Your task to perform on an android device: turn on the 12-hour format for clock Image 0: 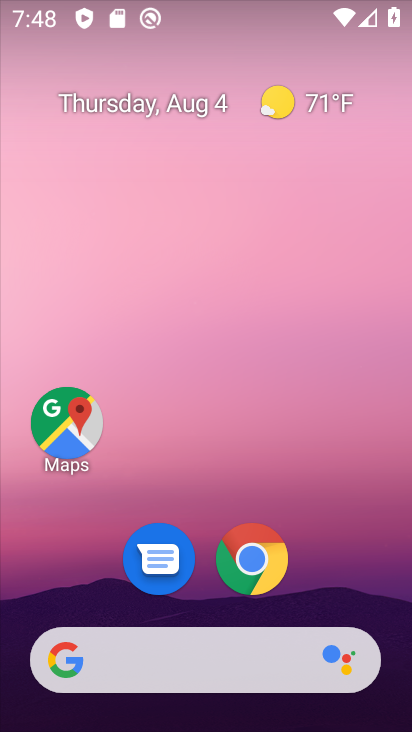
Step 0: drag from (231, 627) to (144, 13)
Your task to perform on an android device: turn on the 12-hour format for clock Image 1: 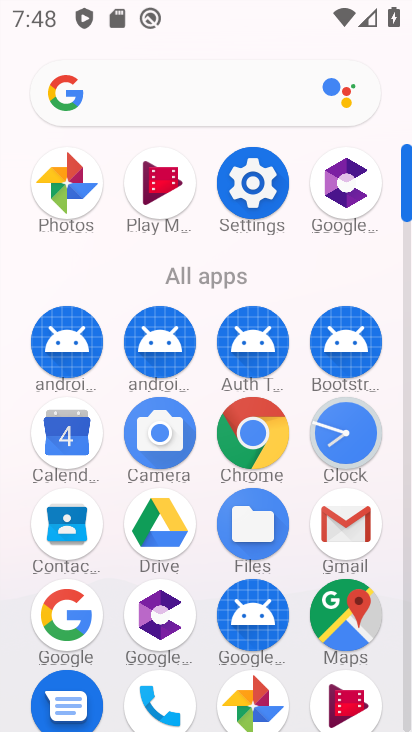
Step 1: click (322, 440)
Your task to perform on an android device: turn on the 12-hour format for clock Image 2: 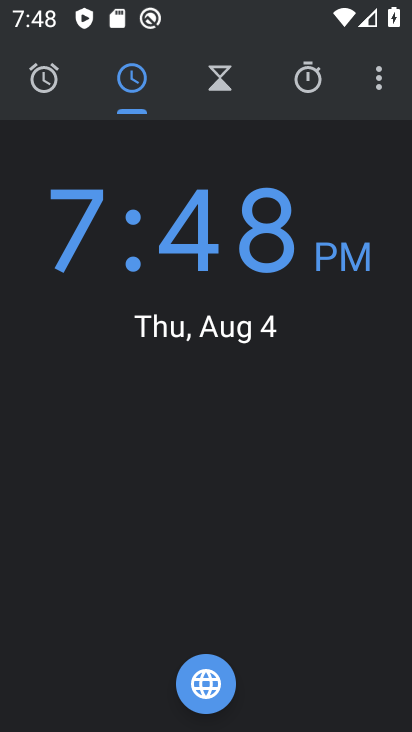
Step 2: click (379, 78)
Your task to perform on an android device: turn on the 12-hour format for clock Image 3: 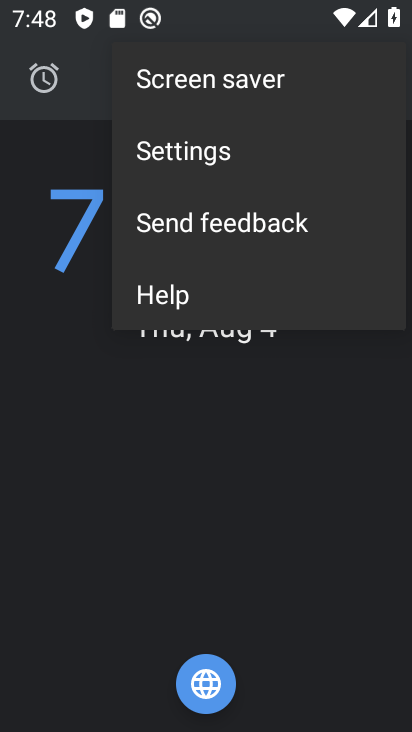
Step 3: click (194, 157)
Your task to perform on an android device: turn on the 12-hour format for clock Image 4: 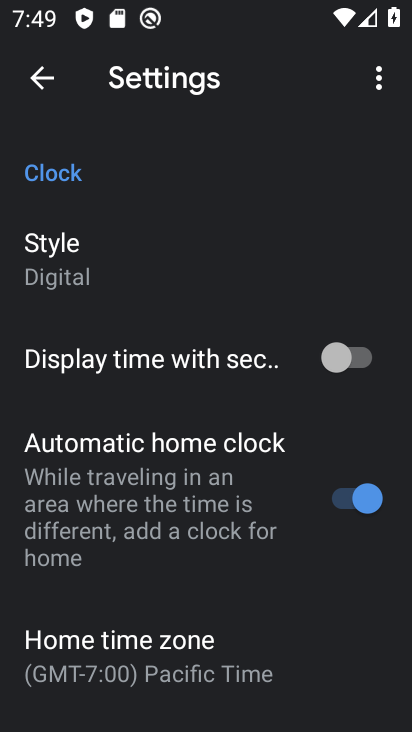
Step 4: drag from (204, 638) to (180, 124)
Your task to perform on an android device: turn on the 12-hour format for clock Image 5: 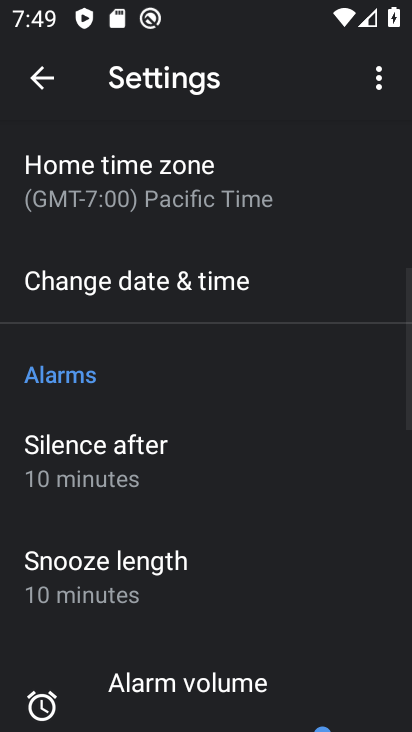
Step 5: click (199, 286)
Your task to perform on an android device: turn on the 12-hour format for clock Image 6: 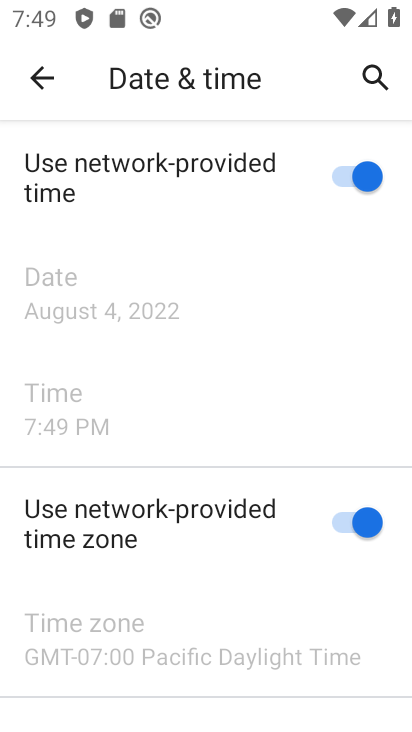
Step 6: task complete